Your task to perform on an android device: change the clock display to digital Image 0: 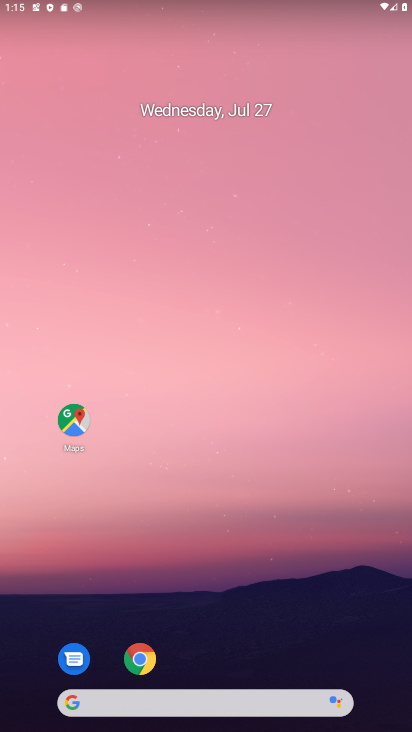
Step 0: drag from (322, 569) to (324, 30)
Your task to perform on an android device: change the clock display to digital Image 1: 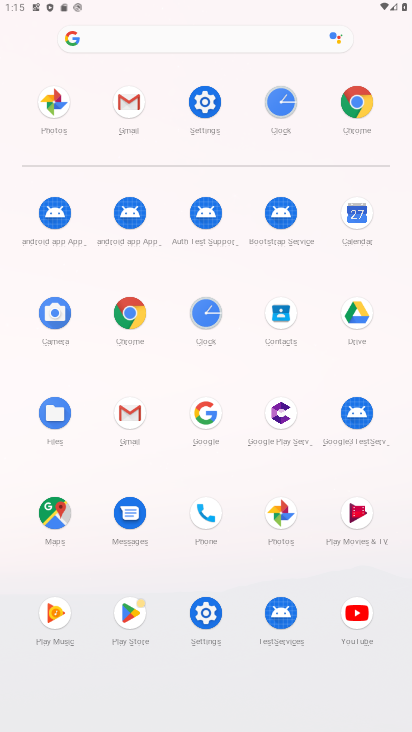
Step 1: click (202, 309)
Your task to perform on an android device: change the clock display to digital Image 2: 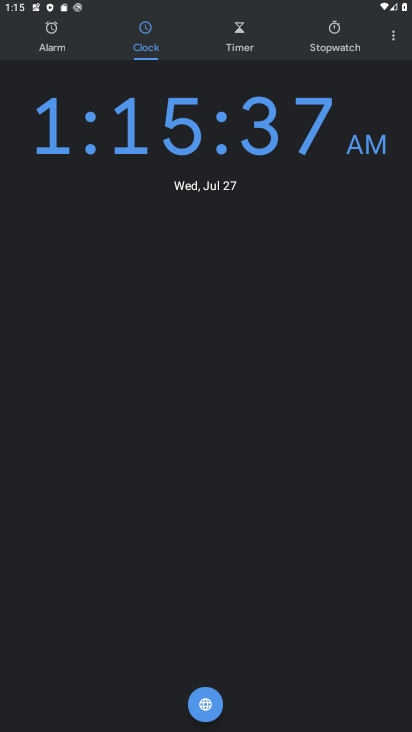
Step 2: click (399, 35)
Your task to perform on an android device: change the clock display to digital Image 3: 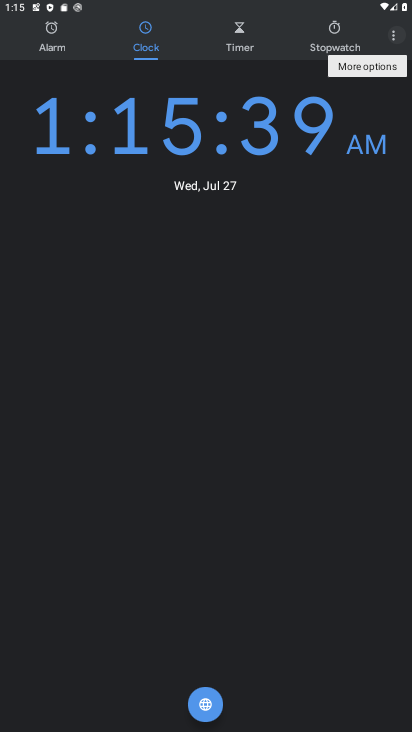
Step 3: click (399, 35)
Your task to perform on an android device: change the clock display to digital Image 4: 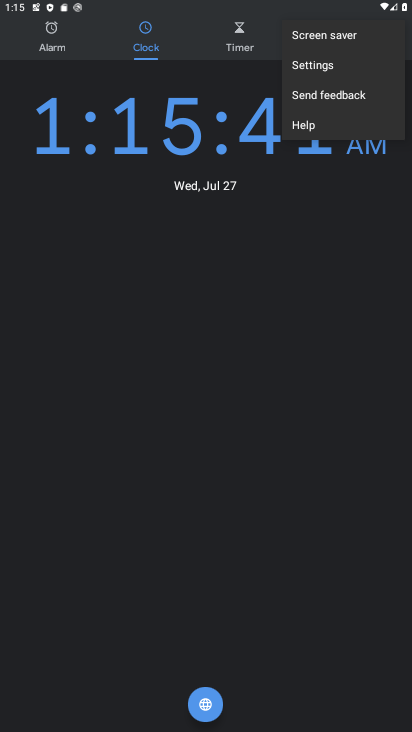
Step 4: click (333, 67)
Your task to perform on an android device: change the clock display to digital Image 5: 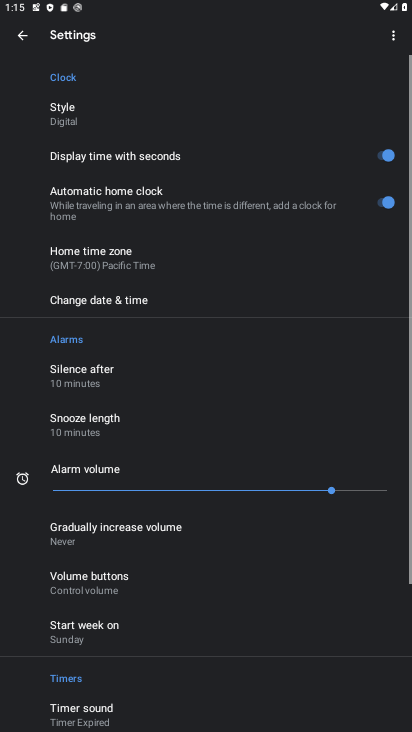
Step 5: click (62, 115)
Your task to perform on an android device: change the clock display to digital Image 6: 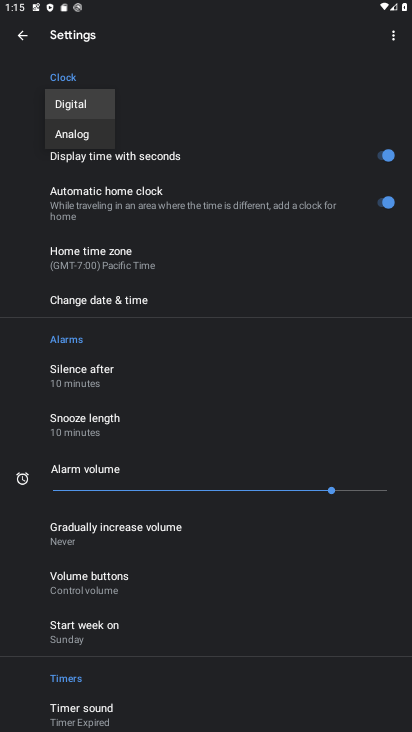
Step 6: task complete